Your task to perform on an android device: change the clock display to digital Image 0: 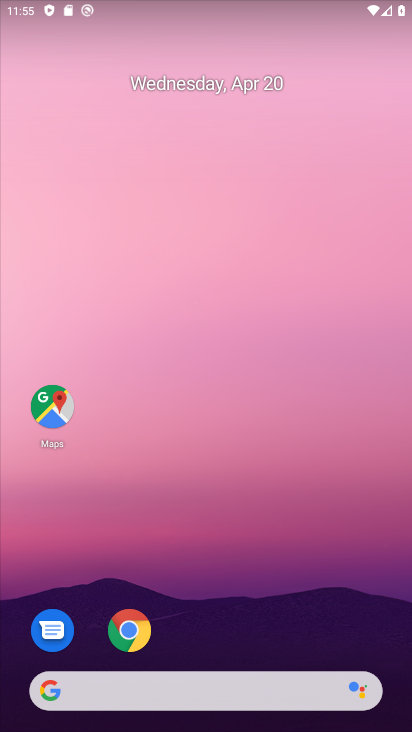
Step 0: drag from (350, 582) to (325, 186)
Your task to perform on an android device: change the clock display to digital Image 1: 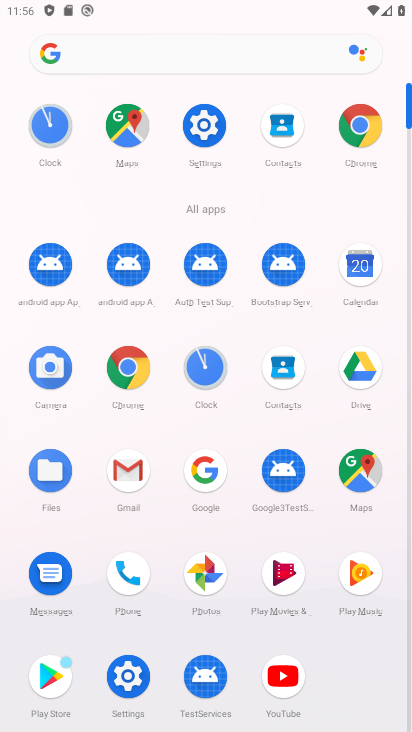
Step 1: click (208, 373)
Your task to perform on an android device: change the clock display to digital Image 2: 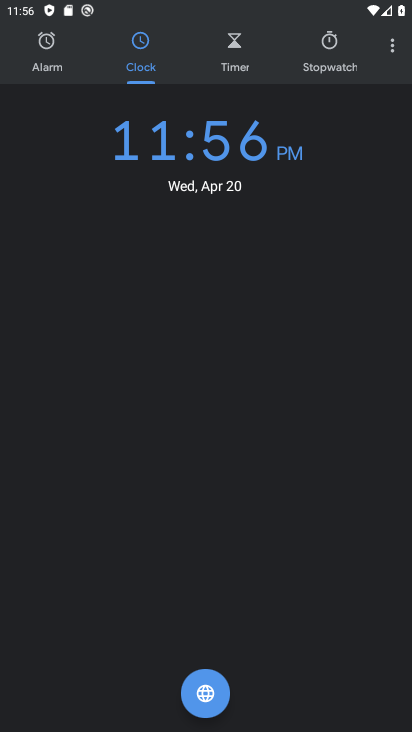
Step 2: click (397, 50)
Your task to perform on an android device: change the clock display to digital Image 3: 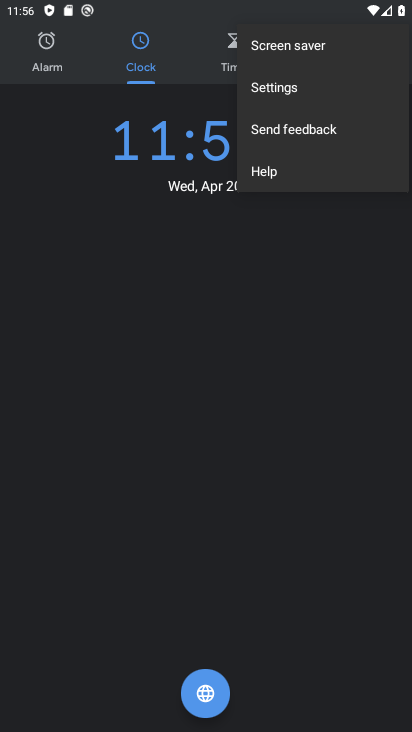
Step 3: click (360, 87)
Your task to perform on an android device: change the clock display to digital Image 4: 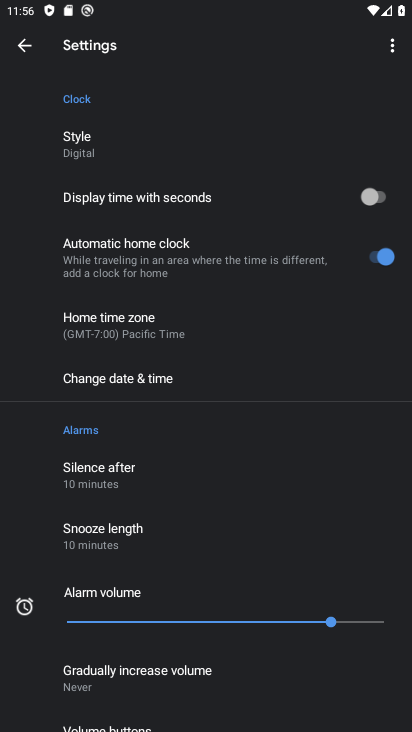
Step 4: click (263, 139)
Your task to perform on an android device: change the clock display to digital Image 5: 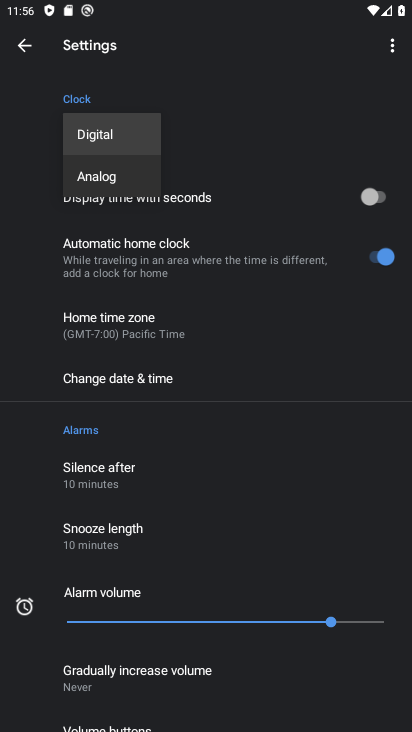
Step 5: task complete